Your task to perform on an android device: turn on wifi Image 0: 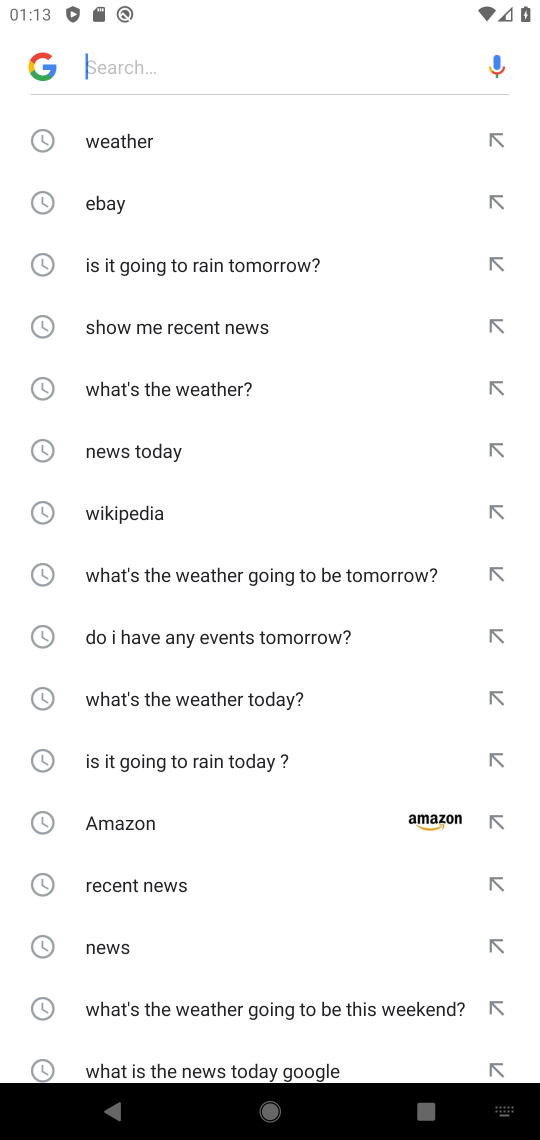
Step 0: press home button
Your task to perform on an android device: turn on wifi Image 1: 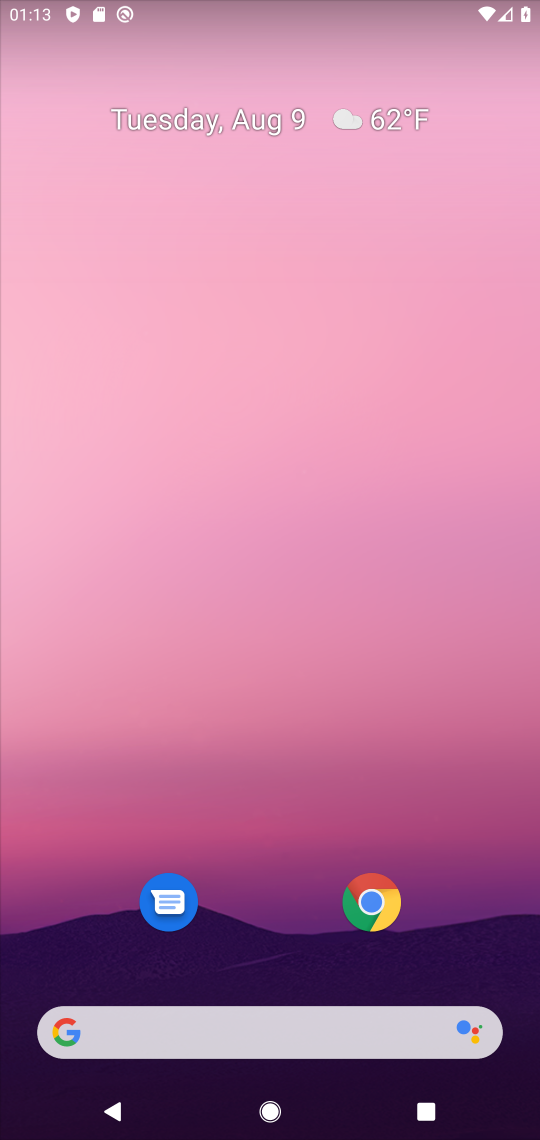
Step 1: drag from (230, 945) to (177, 498)
Your task to perform on an android device: turn on wifi Image 2: 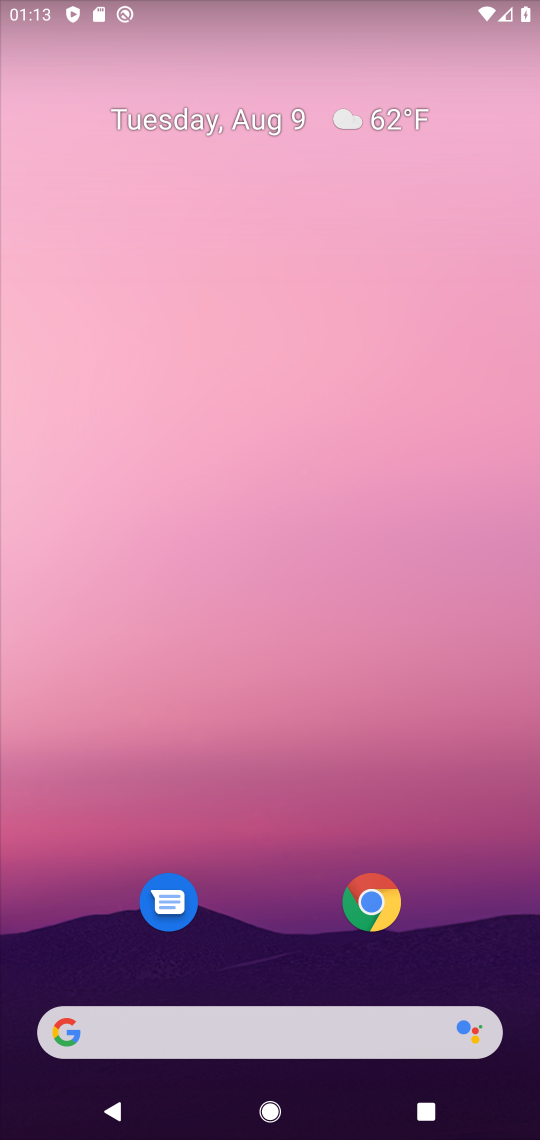
Step 2: drag from (321, 991) to (187, 648)
Your task to perform on an android device: turn on wifi Image 3: 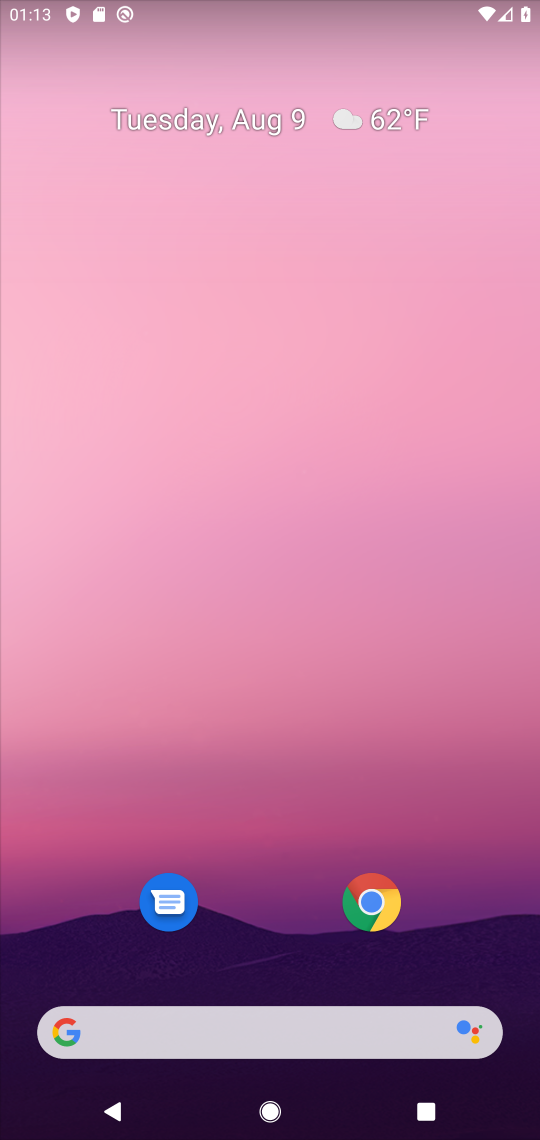
Step 3: drag from (285, 905) to (234, 337)
Your task to perform on an android device: turn on wifi Image 4: 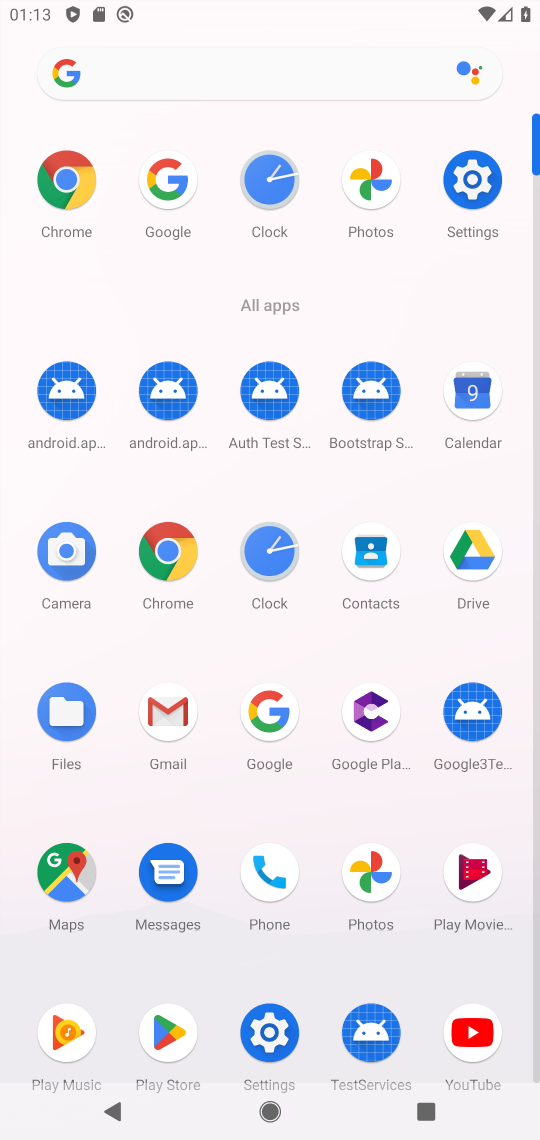
Step 4: click (466, 189)
Your task to perform on an android device: turn on wifi Image 5: 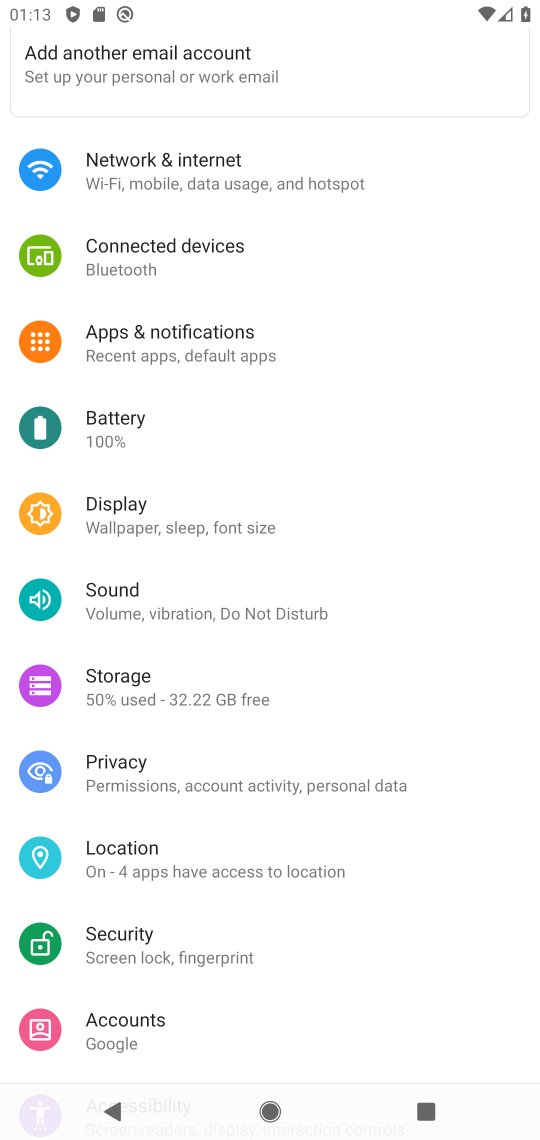
Step 5: click (151, 172)
Your task to perform on an android device: turn on wifi Image 6: 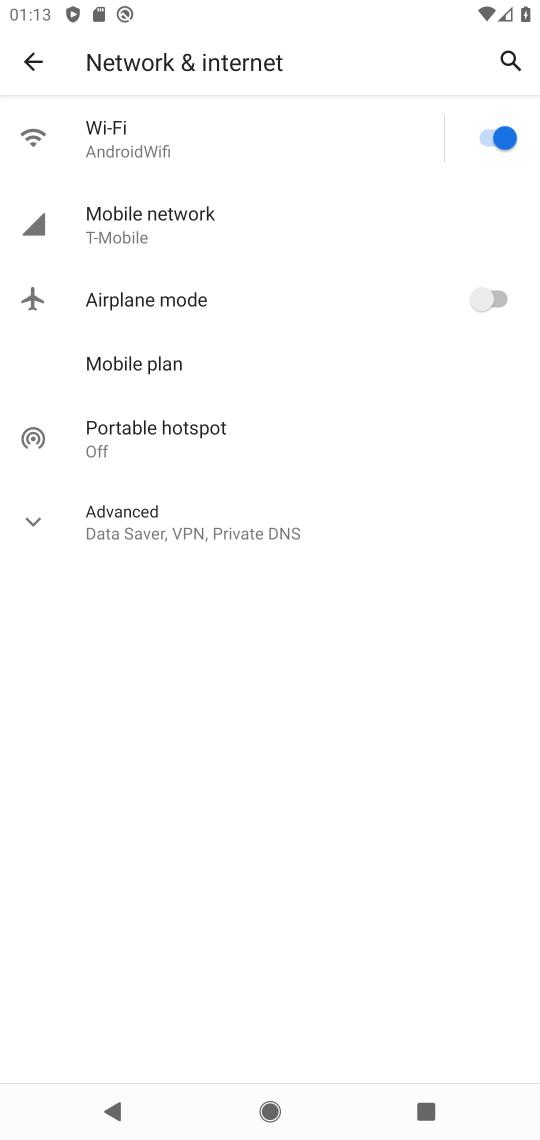
Step 6: task complete